Your task to perform on an android device: Open Google Maps Image 0: 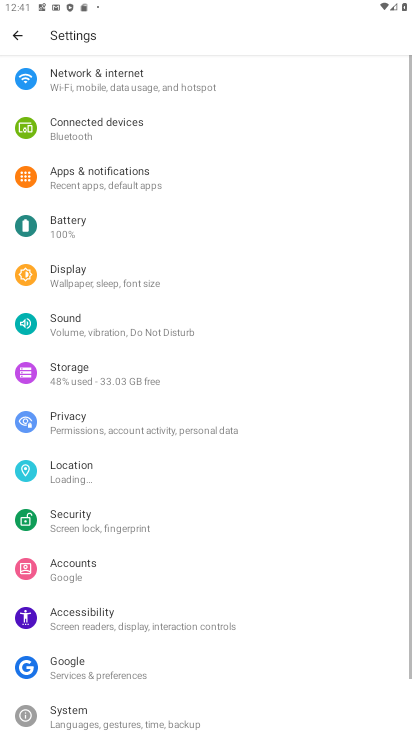
Step 0: press home button
Your task to perform on an android device: Open Google Maps Image 1: 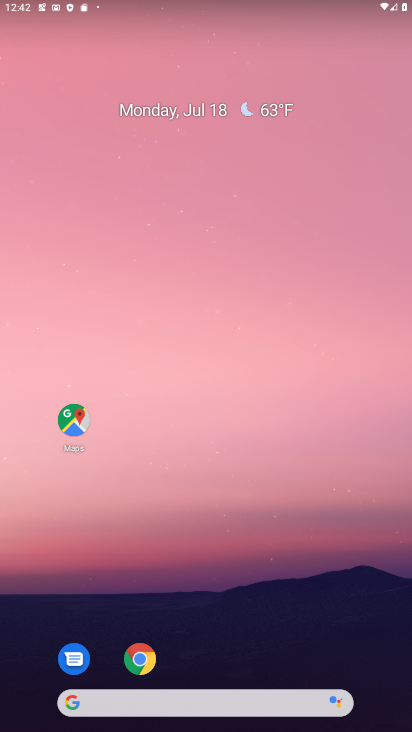
Step 1: drag from (189, 691) to (228, 365)
Your task to perform on an android device: Open Google Maps Image 2: 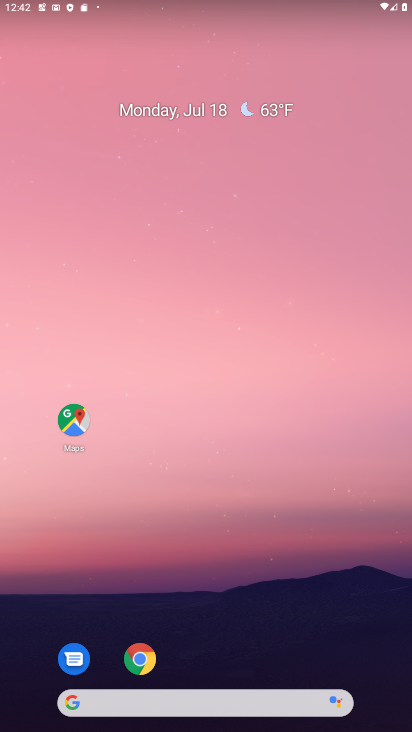
Step 2: drag from (242, 685) to (274, 112)
Your task to perform on an android device: Open Google Maps Image 3: 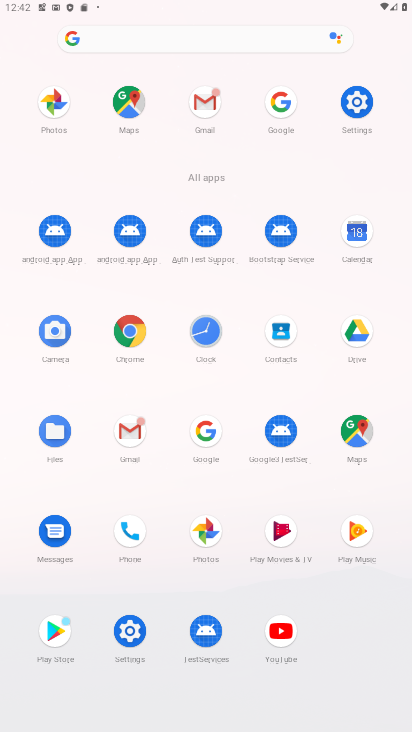
Step 3: click (355, 427)
Your task to perform on an android device: Open Google Maps Image 4: 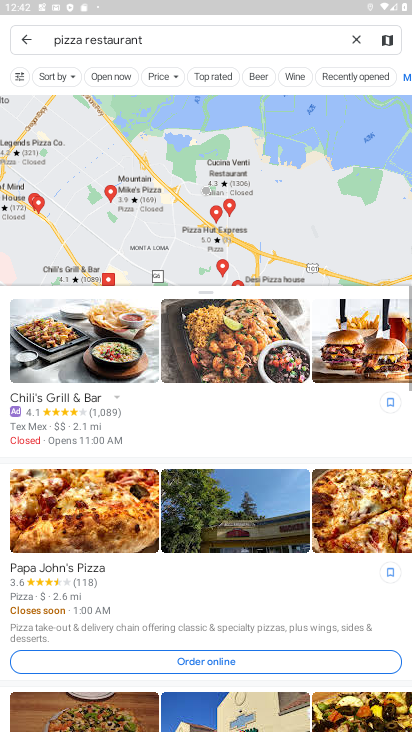
Step 4: click (353, 36)
Your task to perform on an android device: Open Google Maps Image 5: 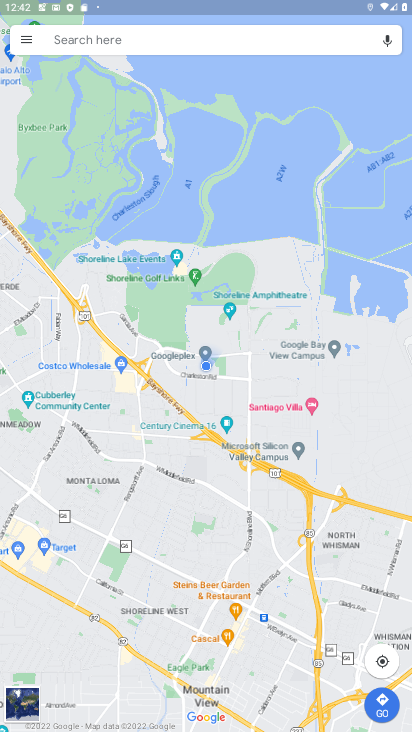
Step 5: task complete